Your task to perform on an android device: turn on data saver in the chrome app Image 0: 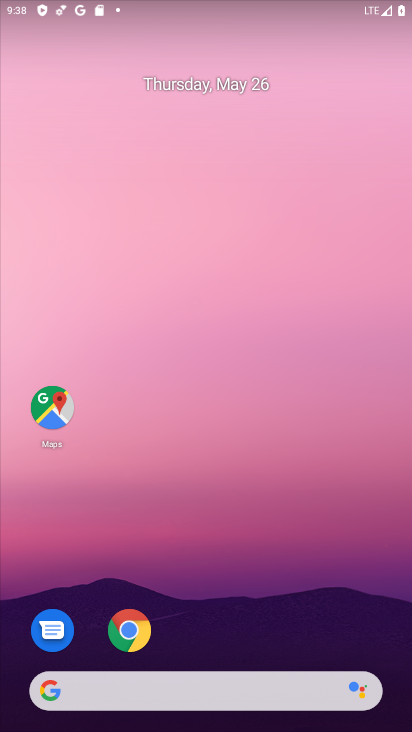
Step 0: click (136, 639)
Your task to perform on an android device: turn on data saver in the chrome app Image 1: 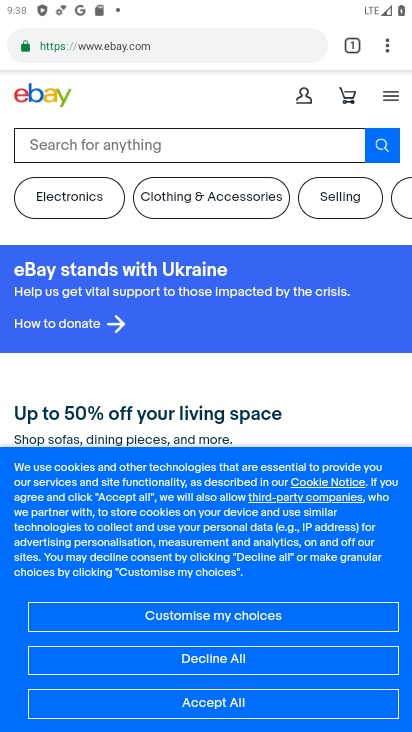
Step 1: click (392, 53)
Your task to perform on an android device: turn on data saver in the chrome app Image 2: 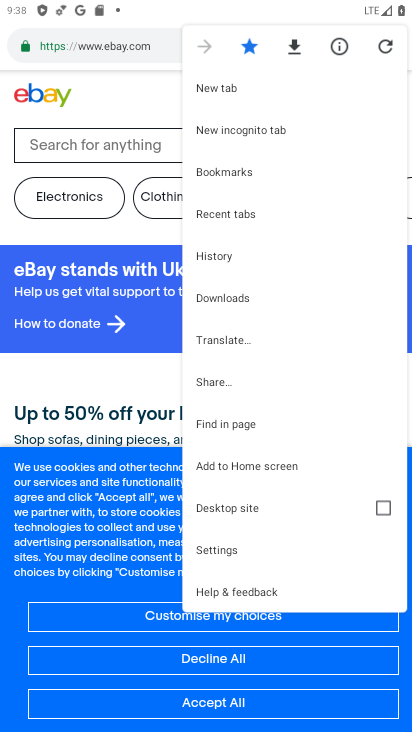
Step 2: click (230, 540)
Your task to perform on an android device: turn on data saver in the chrome app Image 3: 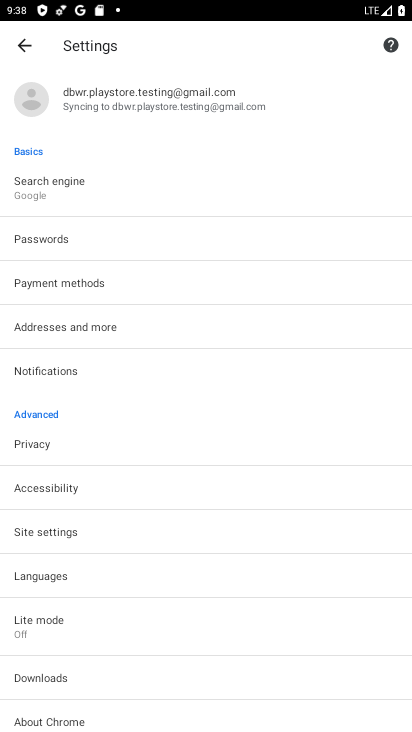
Step 3: click (60, 628)
Your task to perform on an android device: turn on data saver in the chrome app Image 4: 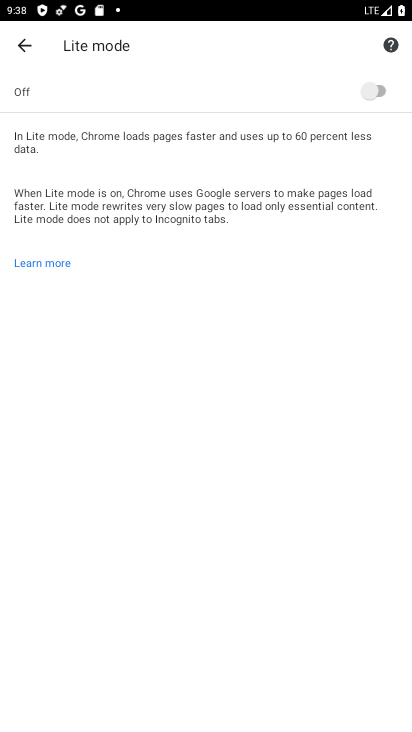
Step 4: click (365, 86)
Your task to perform on an android device: turn on data saver in the chrome app Image 5: 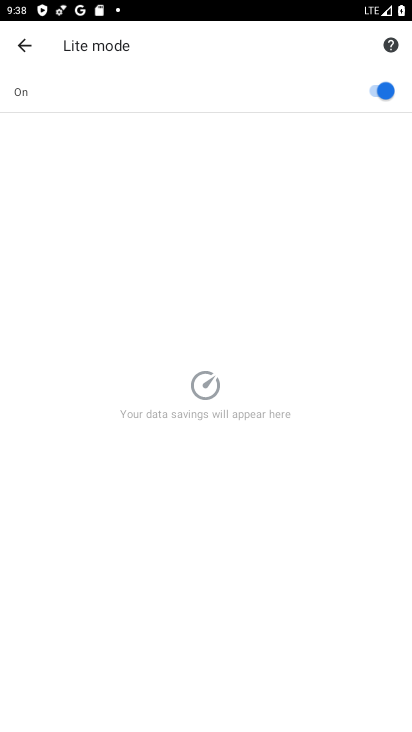
Step 5: task complete